Your task to perform on an android device: remove spam from my inbox in the gmail app Image 0: 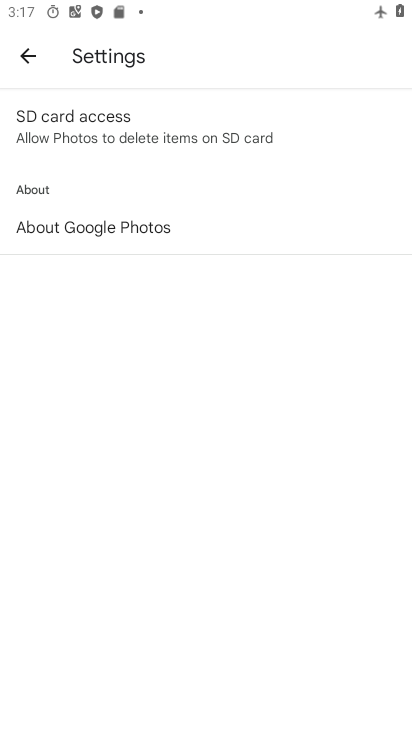
Step 0: press home button
Your task to perform on an android device: remove spam from my inbox in the gmail app Image 1: 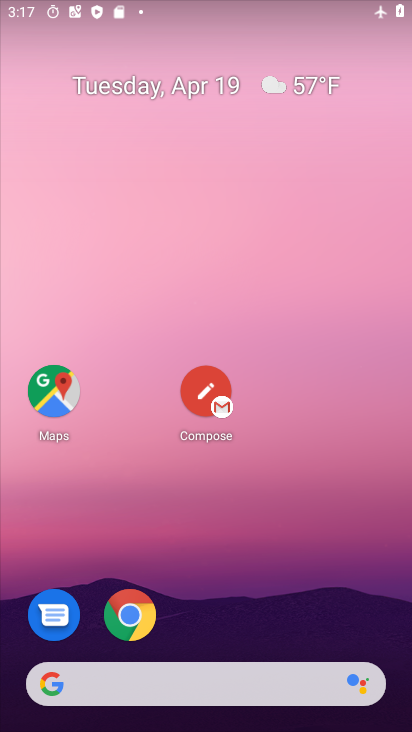
Step 1: drag from (243, 600) to (199, 103)
Your task to perform on an android device: remove spam from my inbox in the gmail app Image 2: 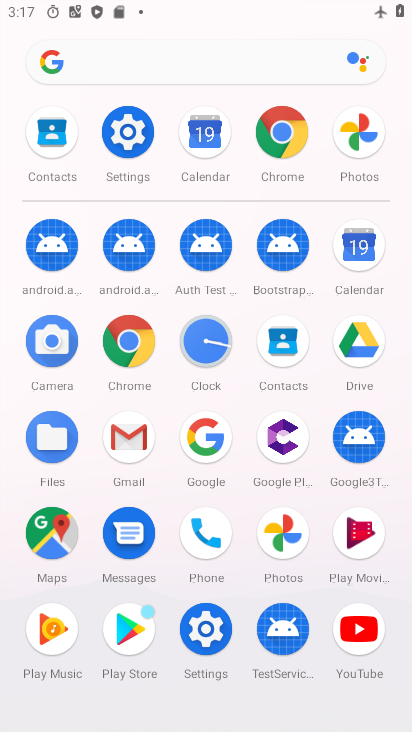
Step 2: click (128, 445)
Your task to perform on an android device: remove spam from my inbox in the gmail app Image 3: 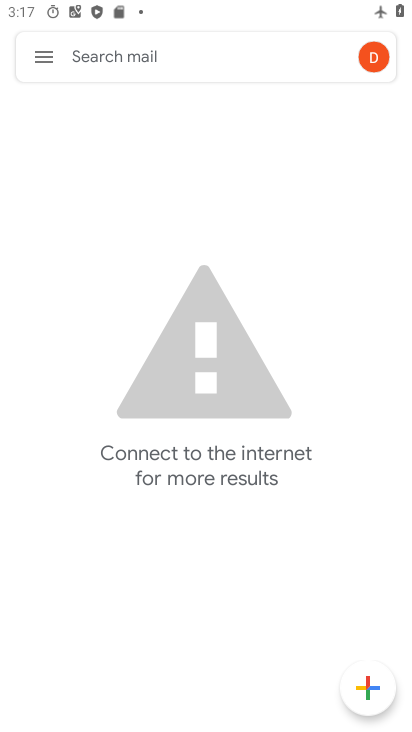
Step 3: click (43, 55)
Your task to perform on an android device: remove spam from my inbox in the gmail app Image 4: 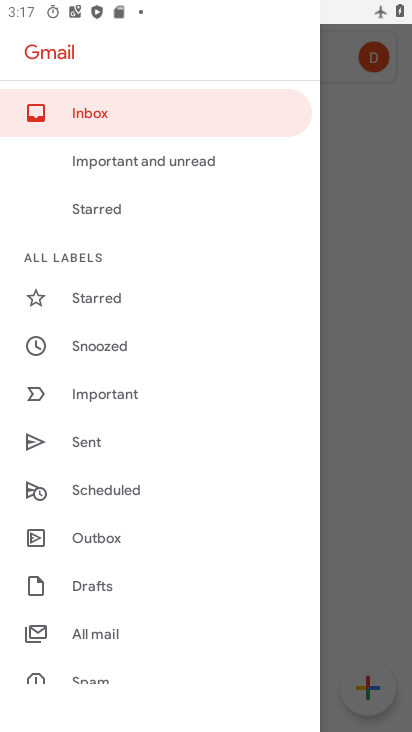
Step 4: drag from (120, 619) to (121, 239)
Your task to perform on an android device: remove spam from my inbox in the gmail app Image 5: 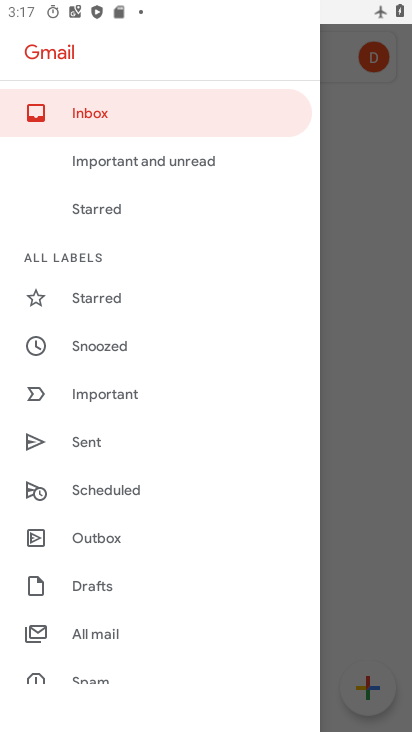
Step 5: click (117, 677)
Your task to perform on an android device: remove spam from my inbox in the gmail app Image 6: 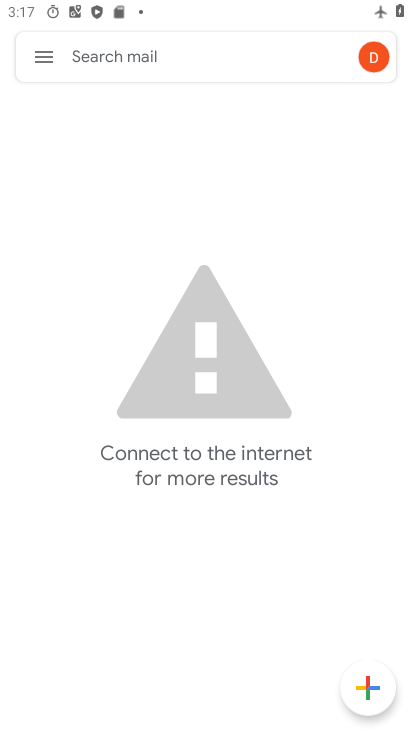
Step 6: task complete